Your task to perform on an android device: open the mobile data screen to see how much data has been used Image 0: 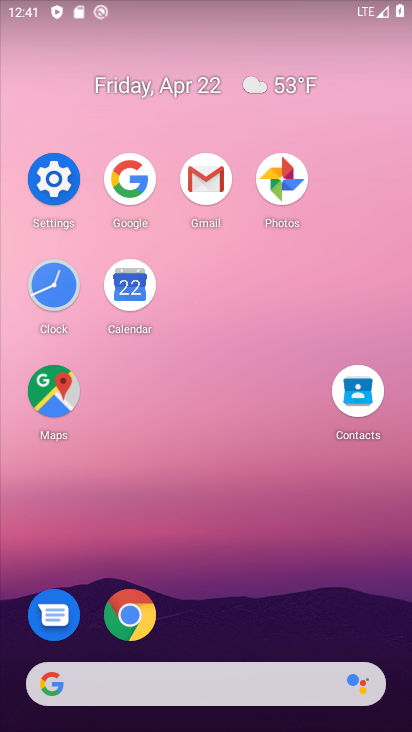
Step 0: click (62, 172)
Your task to perform on an android device: open the mobile data screen to see how much data has been used Image 1: 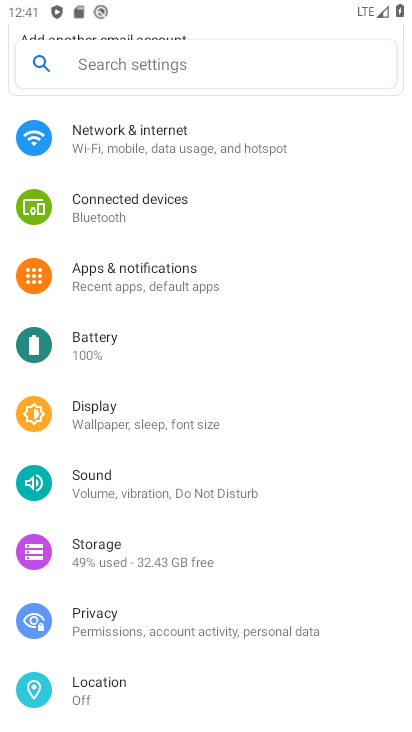
Step 1: click (204, 137)
Your task to perform on an android device: open the mobile data screen to see how much data has been used Image 2: 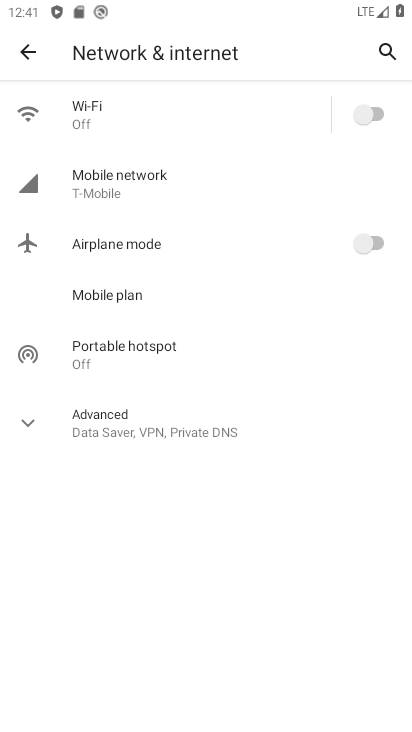
Step 2: click (155, 188)
Your task to perform on an android device: open the mobile data screen to see how much data has been used Image 3: 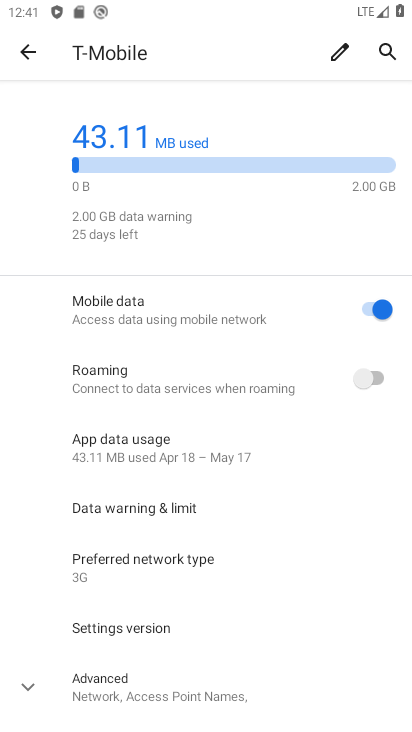
Step 3: click (196, 447)
Your task to perform on an android device: open the mobile data screen to see how much data has been used Image 4: 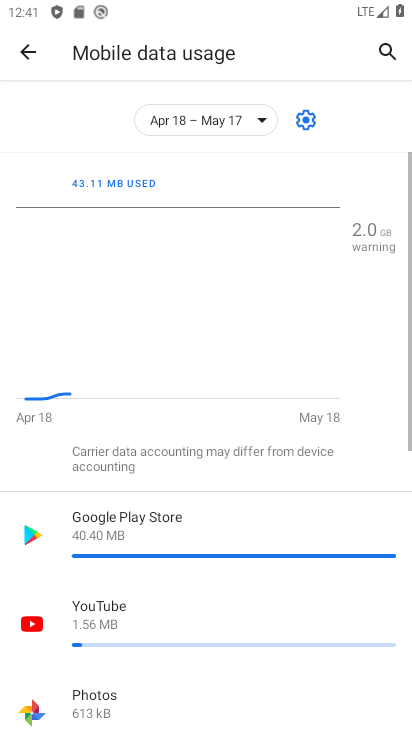
Step 4: task complete